Your task to perform on an android device: turn off wifi Image 0: 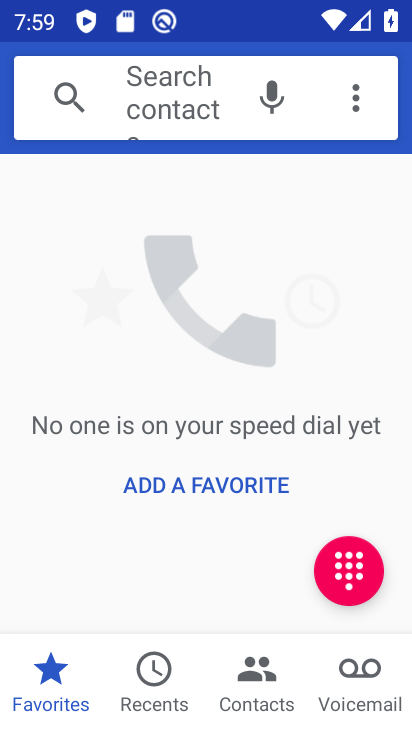
Step 0: press home button
Your task to perform on an android device: turn off wifi Image 1: 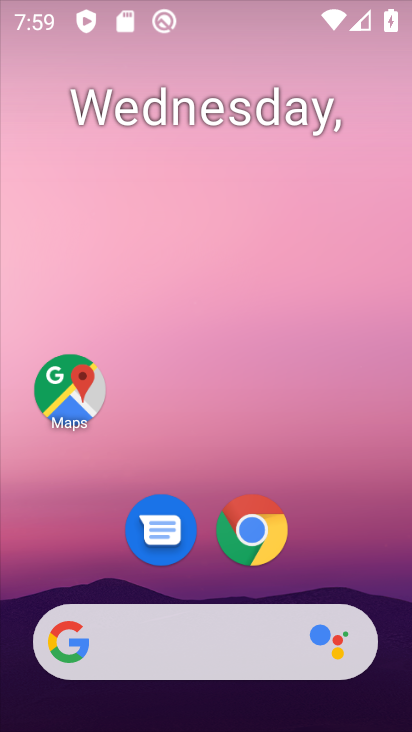
Step 1: drag from (315, 580) to (351, 137)
Your task to perform on an android device: turn off wifi Image 2: 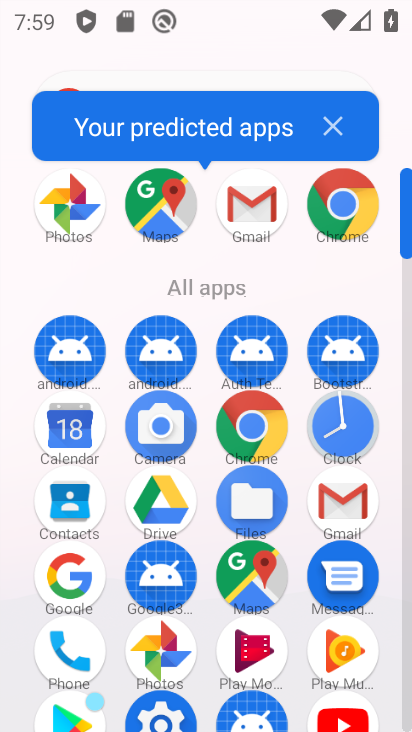
Step 2: click (68, 218)
Your task to perform on an android device: turn off wifi Image 3: 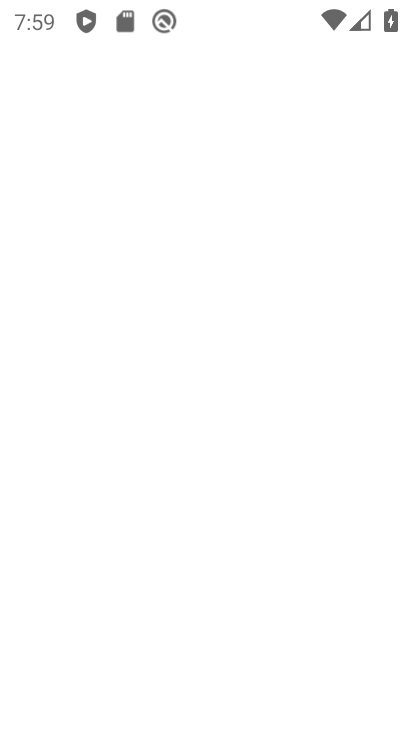
Step 3: press home button
Your task to perform on an android device: turn off wifi Image 4: 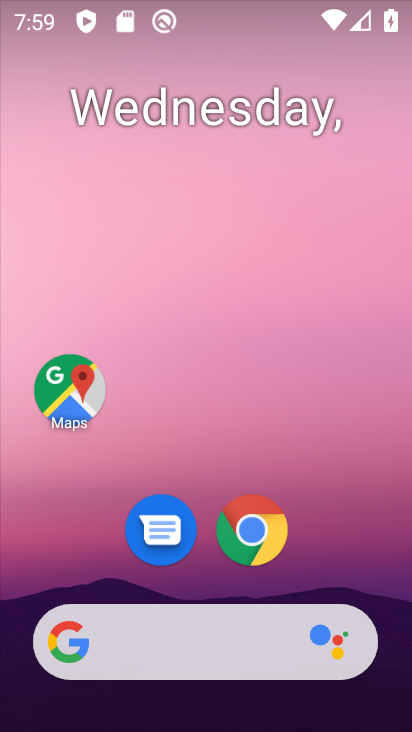
Step 4: drag from (292, 581) to (361, 204)
Your task to perform on an android device: turn off wifi Image 5: 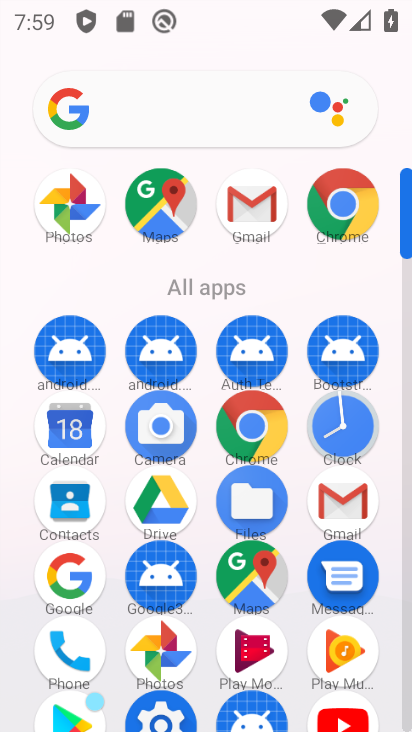
Step 5: drag from (124, 479) to (135, 205)
Your task to perform on an android device: turn off wifi Image 6: 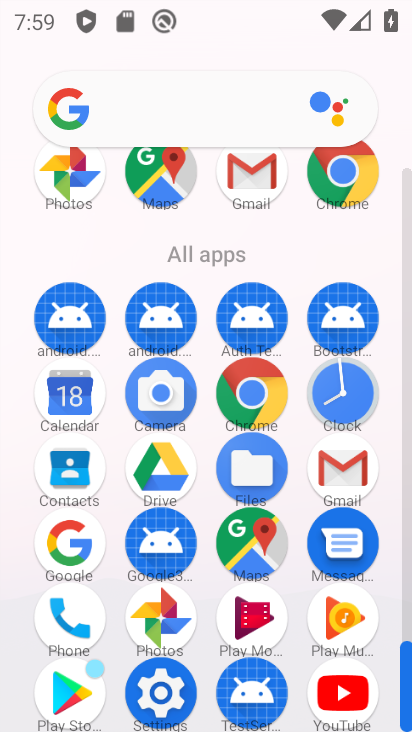
Step 6: click (155, 702)
Your task to perform on an android device: turn off wifi Image 7: 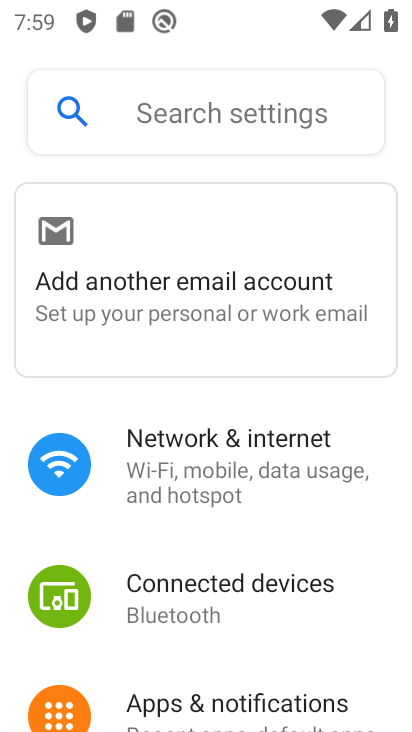
Step 7: click (209, 444)
Your task to perform on an android device: turn off wifi Image 8: 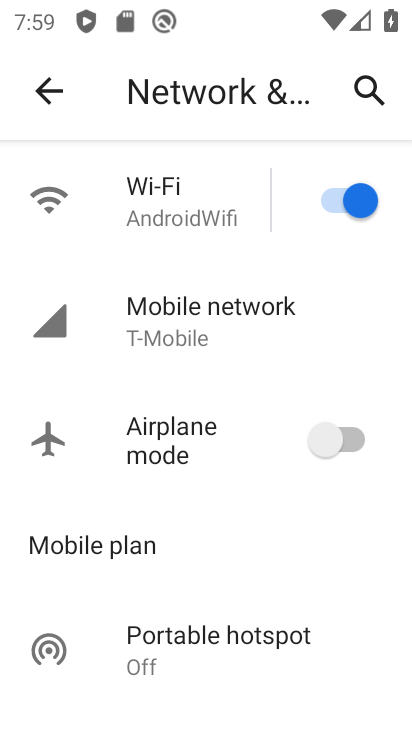
Step 8: click (347, 190)
Your task to perform on an android device: turn off wifi Image 9: 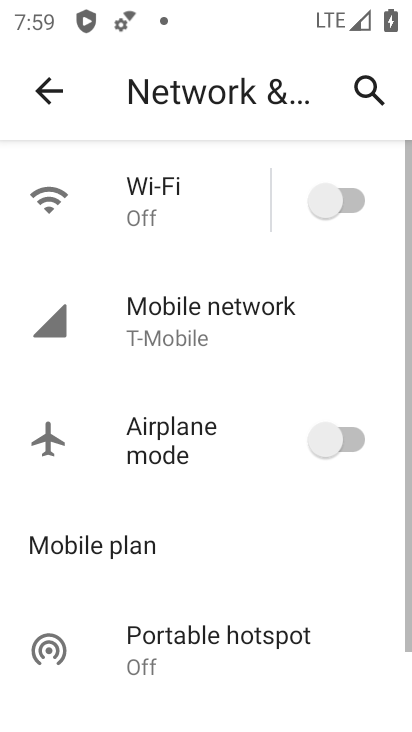
Step 9: task complete